Your task to perform on an android device: Do I have any events today? Image 0: 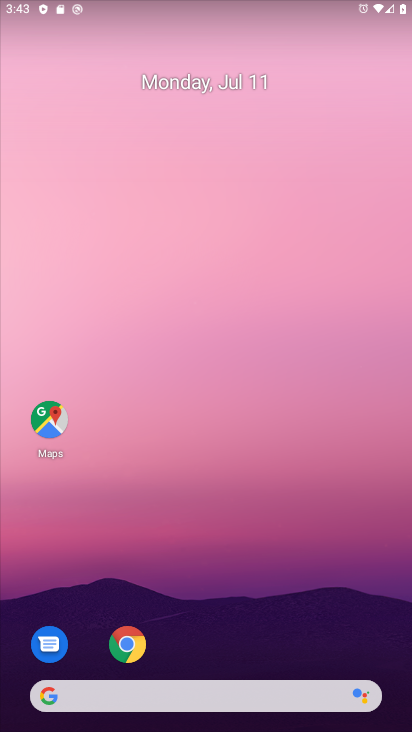
Step 0: drag from (268, 707) to (291, 26)
Your task to perform on an android device: Do I have any events today? Image 1: 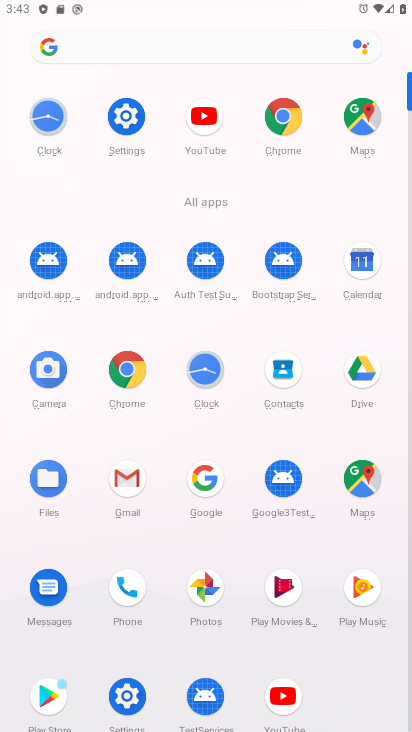
Step 1: click (359, 276)
Your task to perform on an android device: Do I have any events today? Image 2: 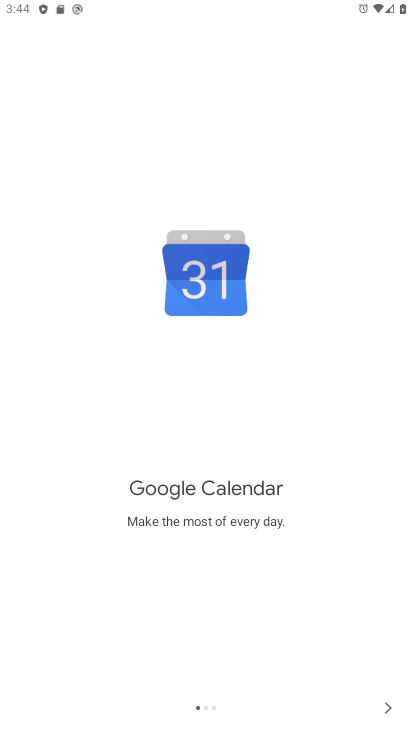
Step 2: click (389, 713)
Your task to perform on an android device: Do I have any events today? Image 3: 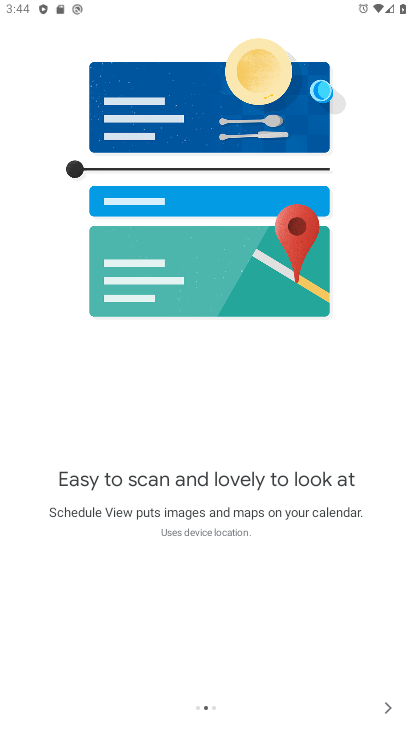
Step 3: click (385, 701)
Your task to perform on an android device: Do I have any events today? Image 4: 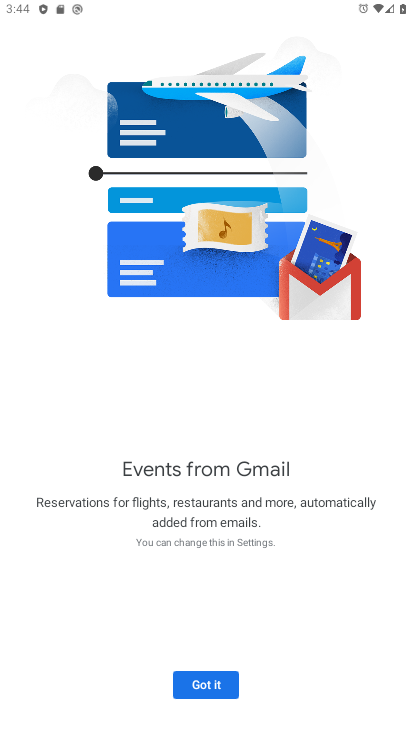
Step 4: click (208, 690)
Your task to perform on an android device: Do I have any events today? Image 5: 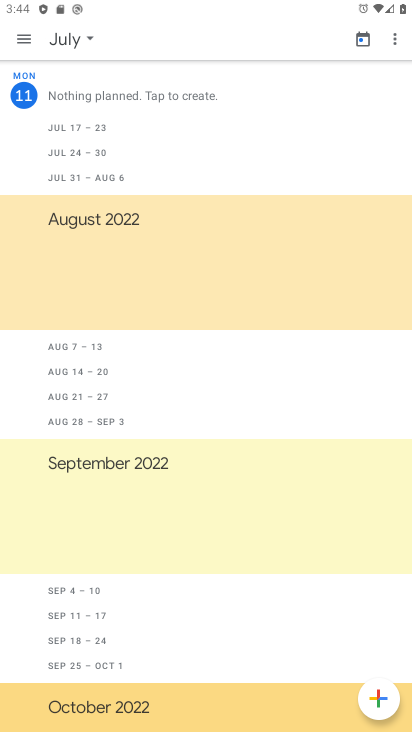
Step 5: click (91, 34)
Your task to perform on an android device: Do I have any events today? Image 6: 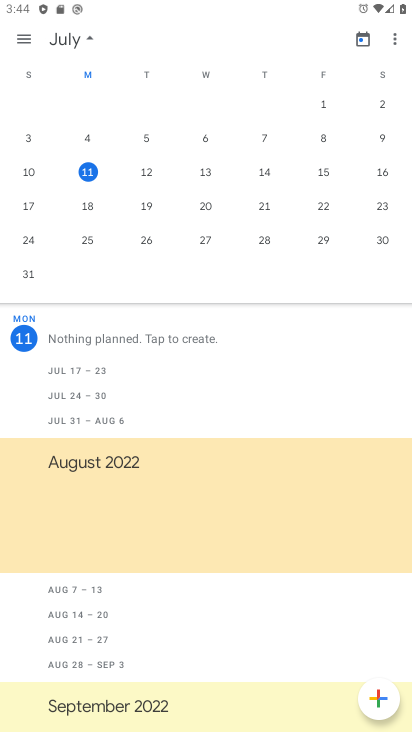
Step 6: click (85, 171)
Your task to perform on an android device: Do I have any events today? Image 7: 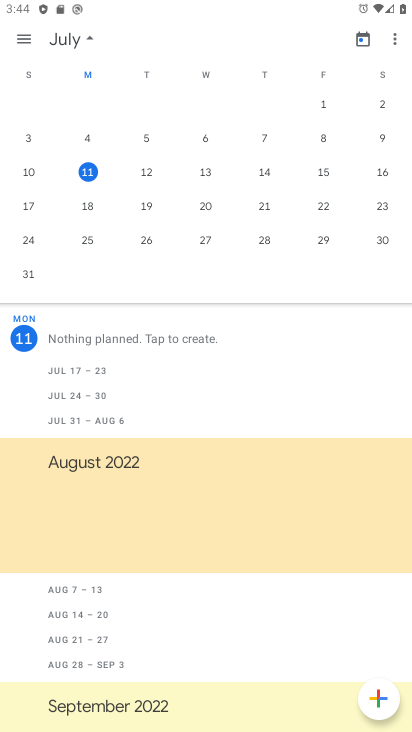
Step 7: task complete